Your task to perform on an android device: Open Google Maps Image 0: 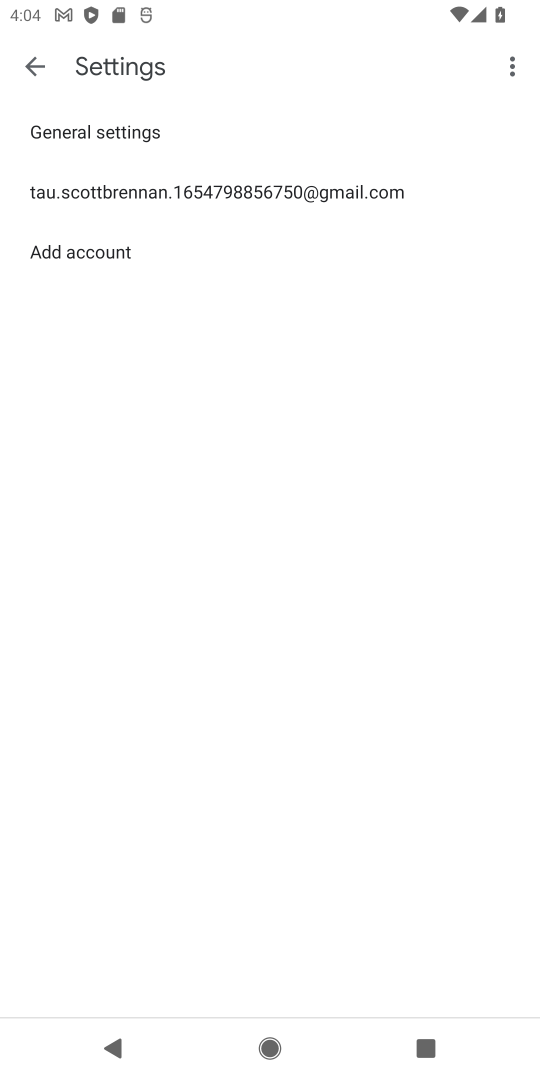
Step 0: press home button
Your task to perform on an android device: Open Google Maps Image 1: 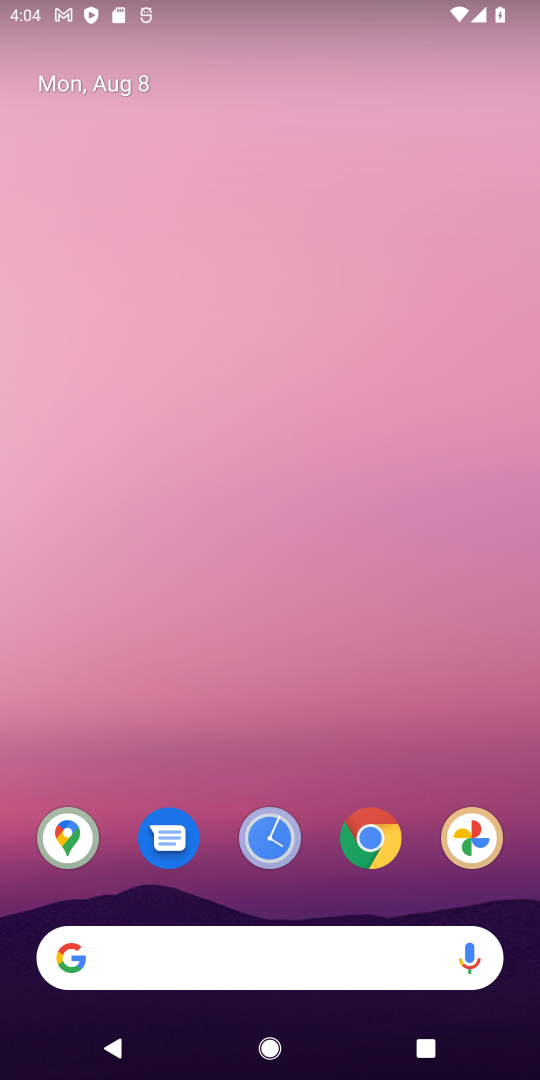
Step 1: click (66, 833)
Your task to perform on an android device: Open Google Maps Image 2: 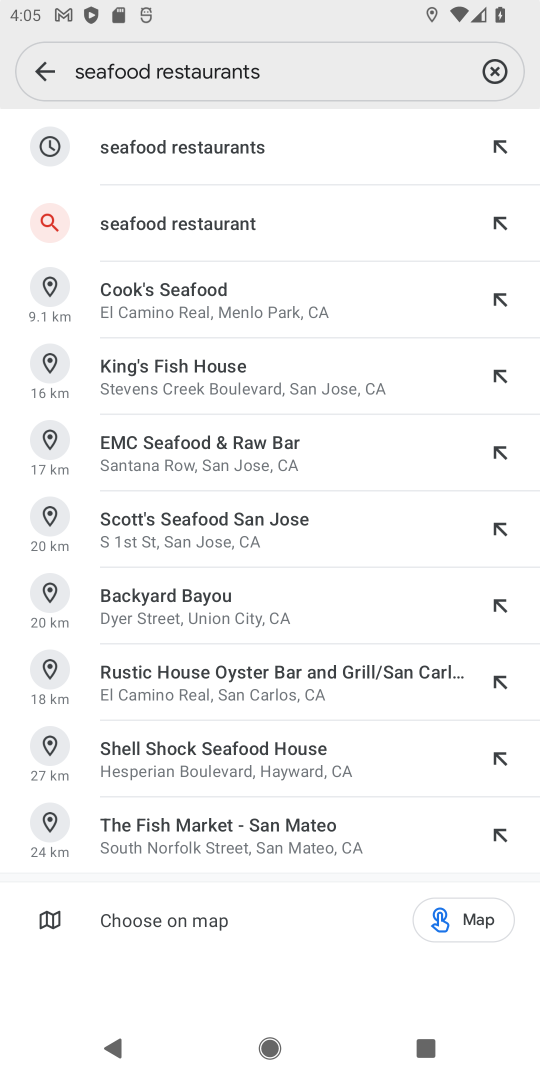
Step 2: task complete